Your task to perform on an android device: open chrome and create a bookmark for the current page Image 0: 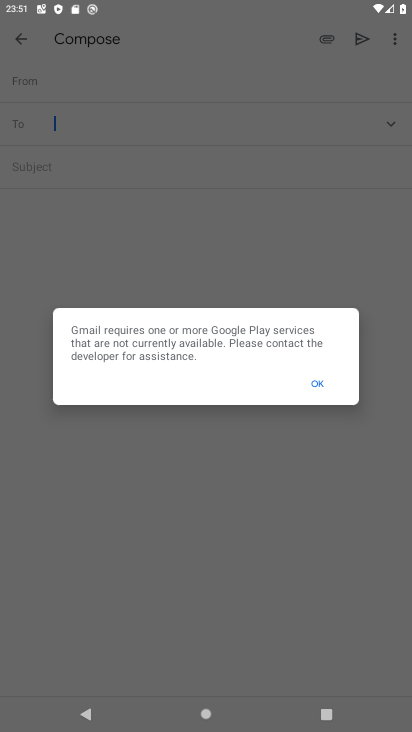
Step 0: click (121, 673)
Your task to perform on an android device: open chrome and create a bookmark for the current page Image 1: 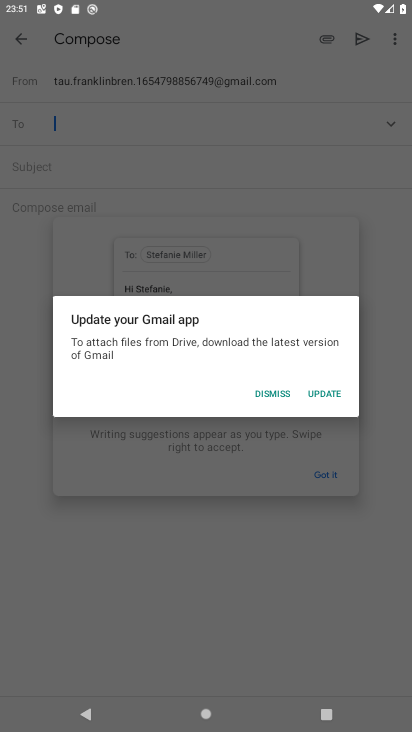
Step 1: press home button
Your task to perform on an android device: open chrome and create a bookmark for the current page Image 2: 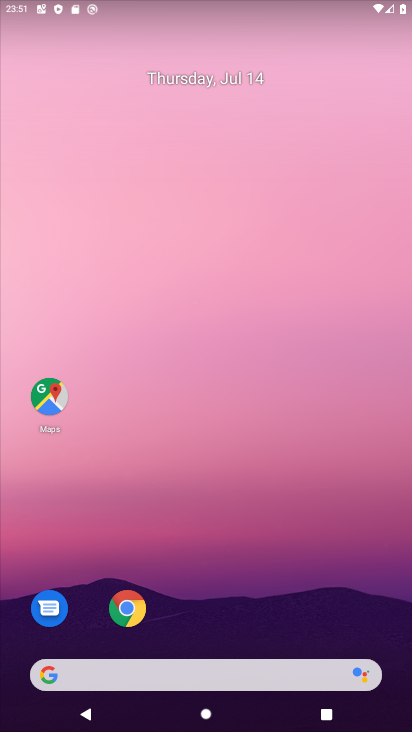
Step 2: click (144, 587)
Your task to perform on an android device: open chrome and create a bookmark for the current page Image 3: 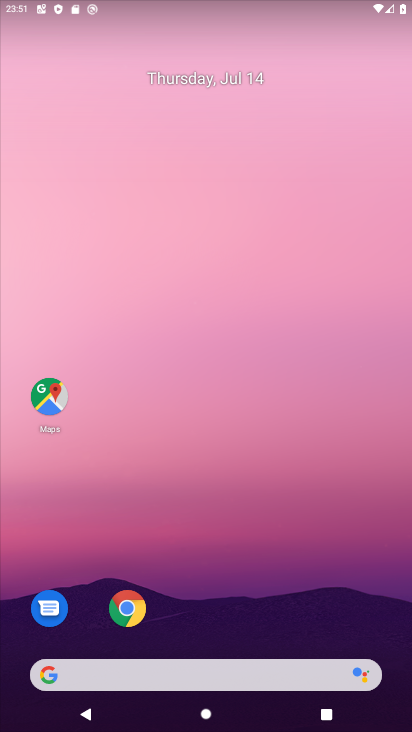
Step 3: click (120, 608)
Your task to perform on an android device: open chrome and create a bookmark for the current page Image 4: 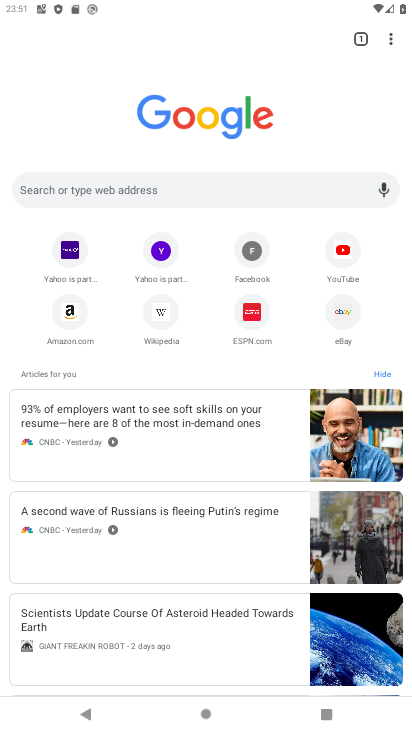
Step 4: click (388, 30)
Your task to perform on an android device: open chrome and create a bookmark for the current page Image 5: 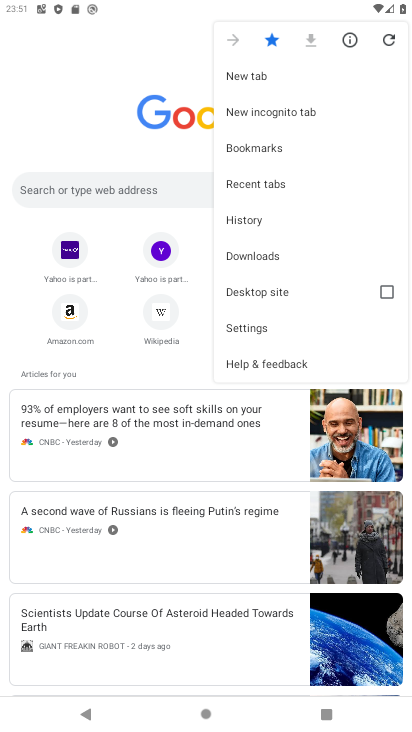
Step 5: click (264, 38)
Your task to perform on an android device: open chrome and create a bookmark for the current page Image 6: 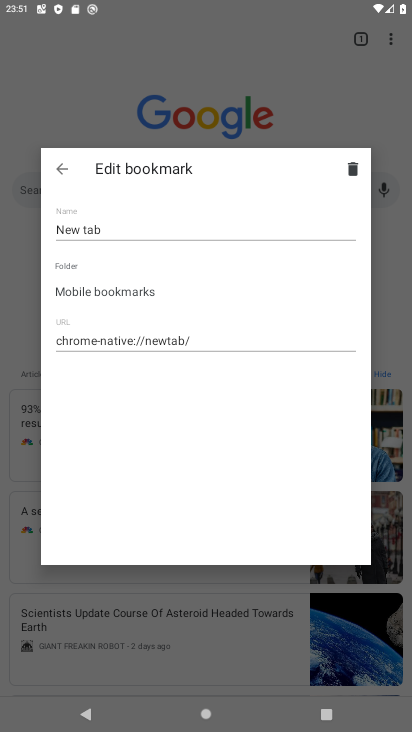
Step 6: click (256, 646)
Your task to perform on an android device: open chrome and create a bookmark for the current page Image 7: 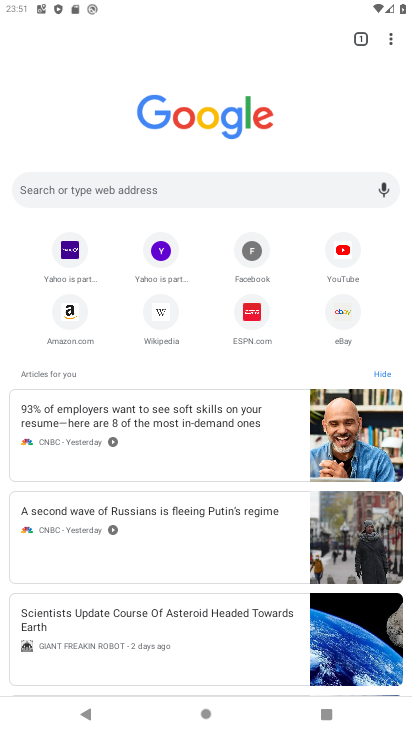
Step 7: task complete